Your task to perform on an android device: Search for Italian restaurants on Maps Image 0: 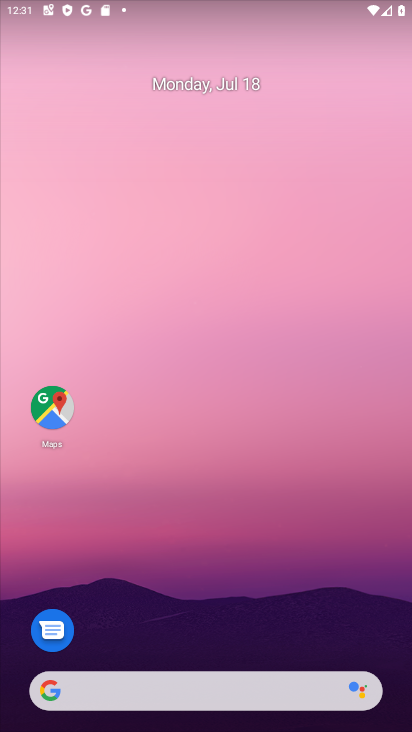
Step 0: drag from (193, 684) to (324, 57)
Your task to perform on an android device: Search for Italian restaurants on Maps Image 1: 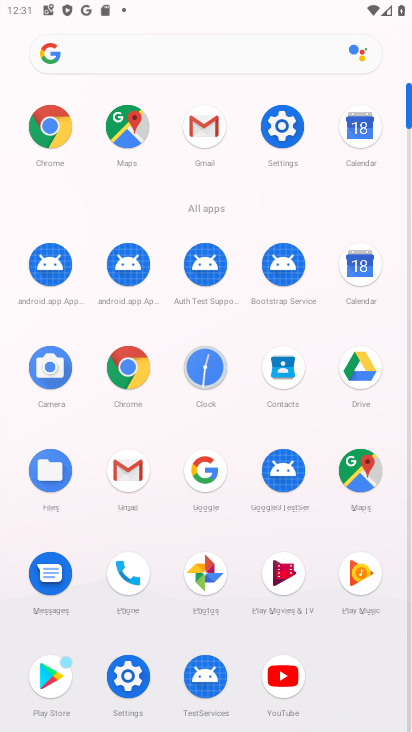
Step 1: click (364, 471)
Your task to perform on an android device: Search for Italian restaurants on Maps Image 2: 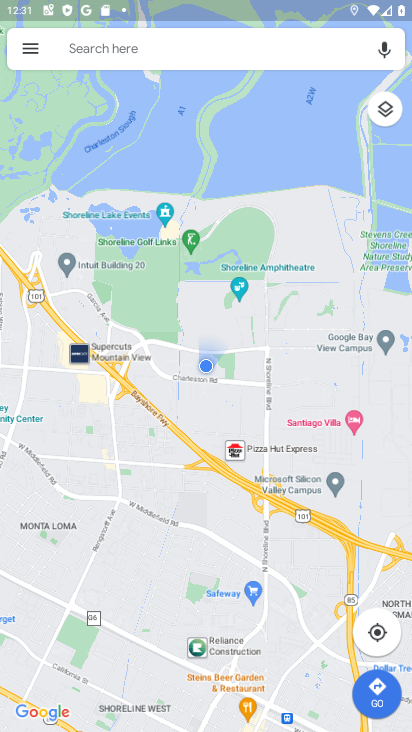
Step 2: click (126, 45)
Your task to perform on an android device: Search for Italian restaurants on Maps Image 3: 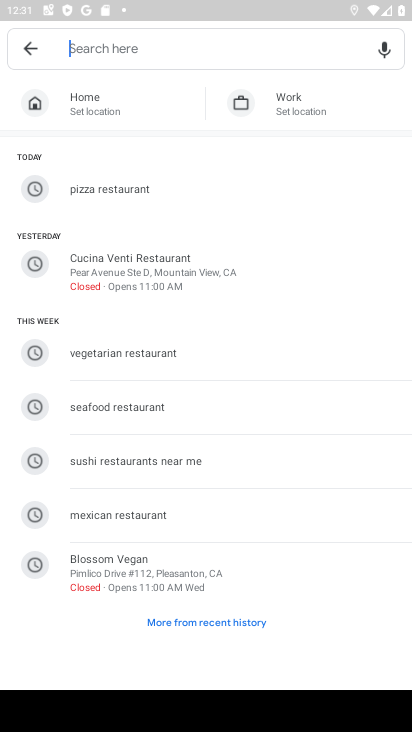
Step 3: type "italiab restaurant"
Your task to perform on an android device: Search for Italian restaurants on Maps Image 4: 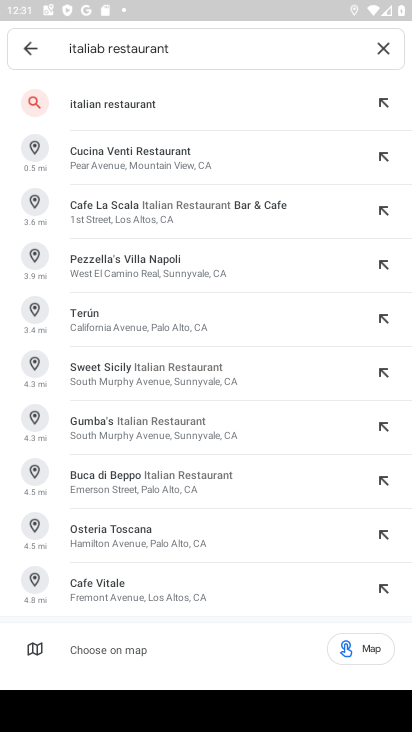
Step 4: click (139, 104)
Your task to perform on an android device: Search for Italian restaurants on Maps Image 5: 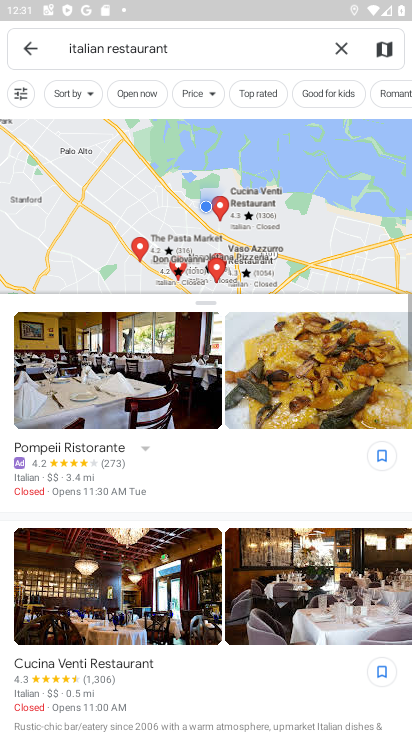
Step 5: task complete